Your task to perform on an android device: find which apps use the phone's location Image 0: 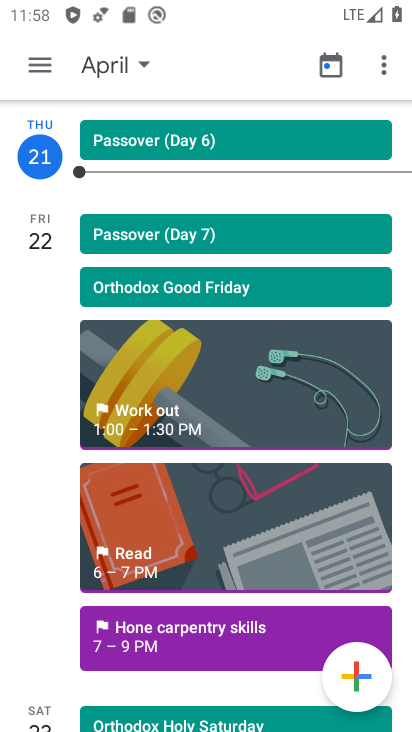
Step 0: press back button
Your task to perform on an android device: find which apps use the phone's location Image 1: 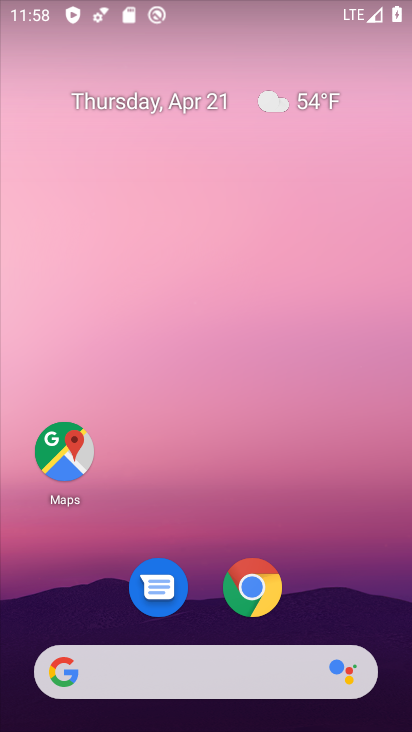
Step 1: drag from (188, 565) to (262, 107)
Your task to perform on an android device: find which apps use the phone's location Image 2: 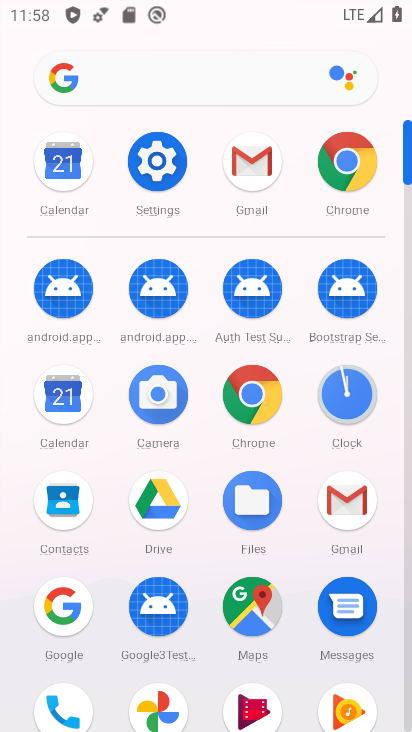
Step 2: click (167, 155)
Your task to perform on an android device: find which apps use the phone's location Image 3: 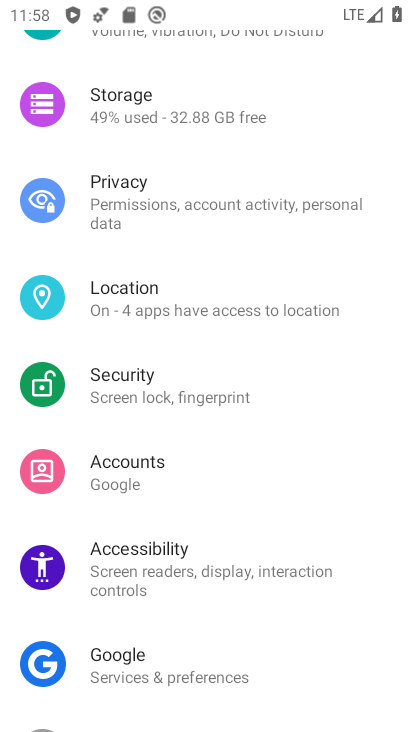
Step 3: drag from (275, 204) to (206, 665)
Your task to perform on an android device: find which apps use the phone's location Image 4: 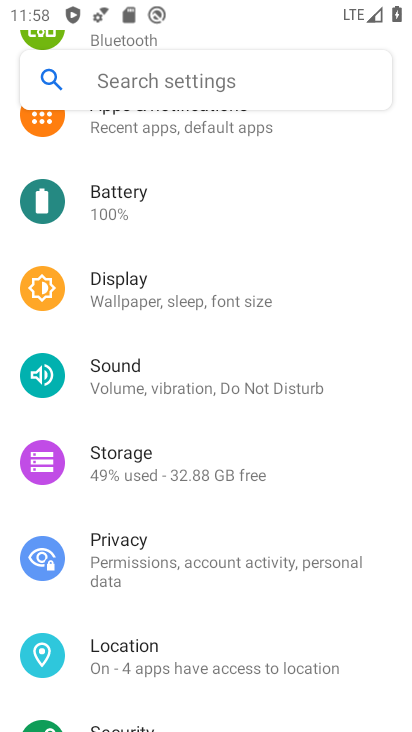
Step 4: click (142, 654)
Your task to perform on an android device: find which apps use the phone's location Image 5: 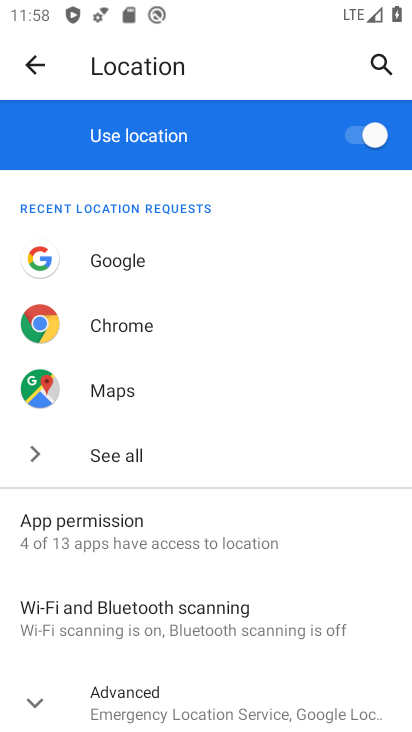
Step 5: click (167, 539)
Your task to perform on an android device: find which apps use the phone's location Image 6: 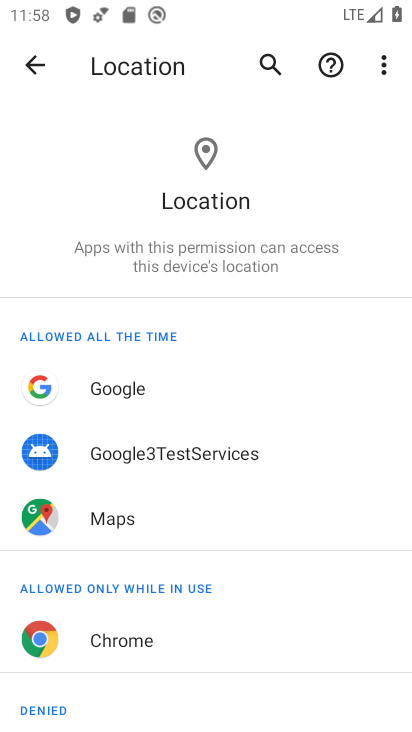
Step 6: task complete